Your task to perform on an android device: Search for "razer blade" on walmart.com, select the first entry, add it to the cart, then select checkout. Image 0: 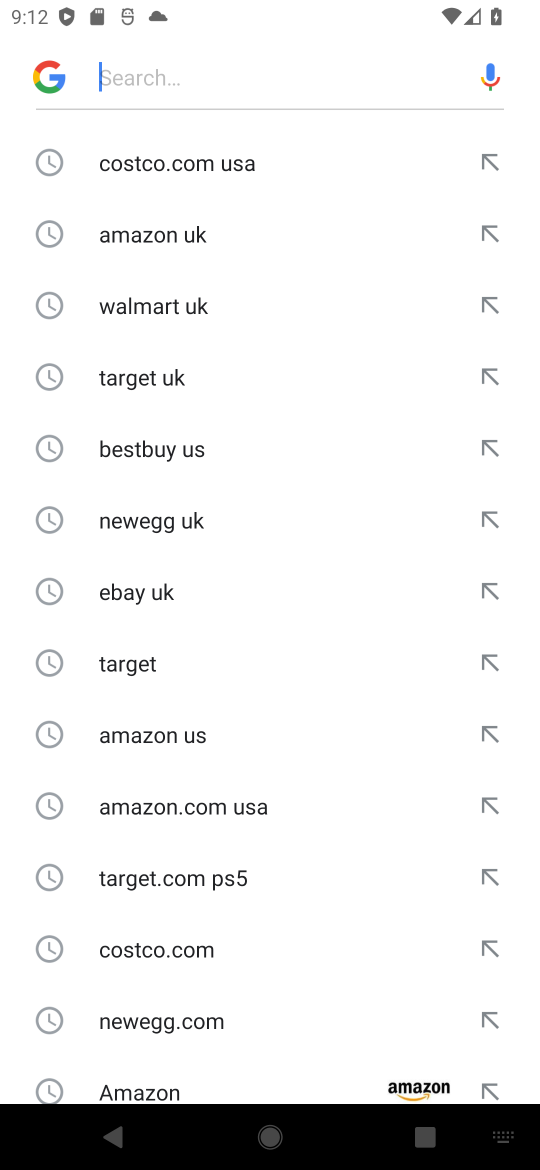
Step 0: click (171, 301)
Your task to perform on an android device: Search for "razer blade" on walmart.com, select the first entry, add it to the cart, then select checkout. Image 1: 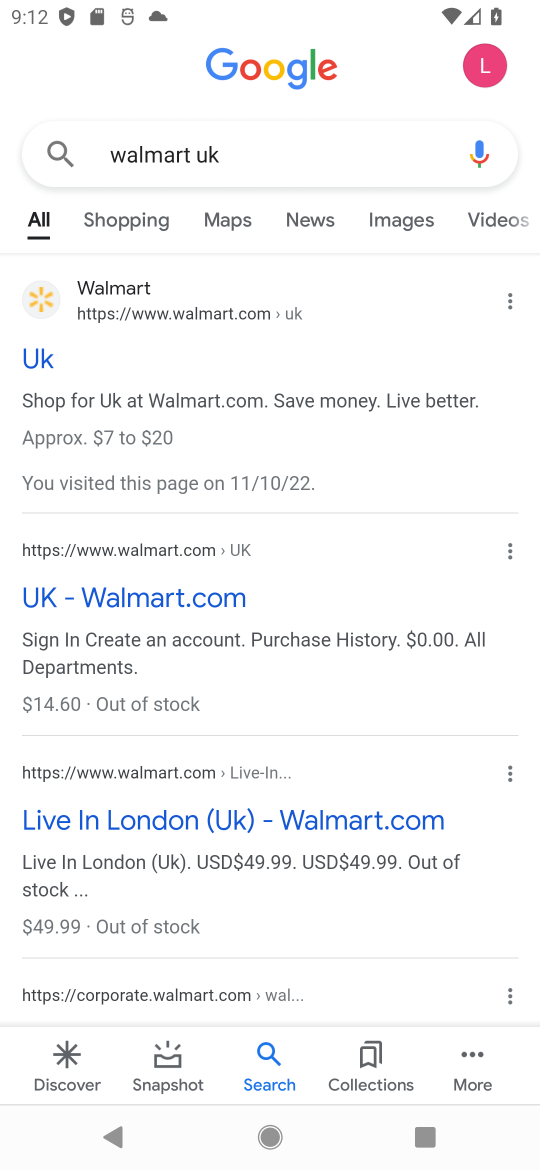
Step 1: click (42, 282)
Your task to perform on an android device: Search for "razer blade" on walmart.com, select the first entry, add it to the cart, then select checkout. Image 2: 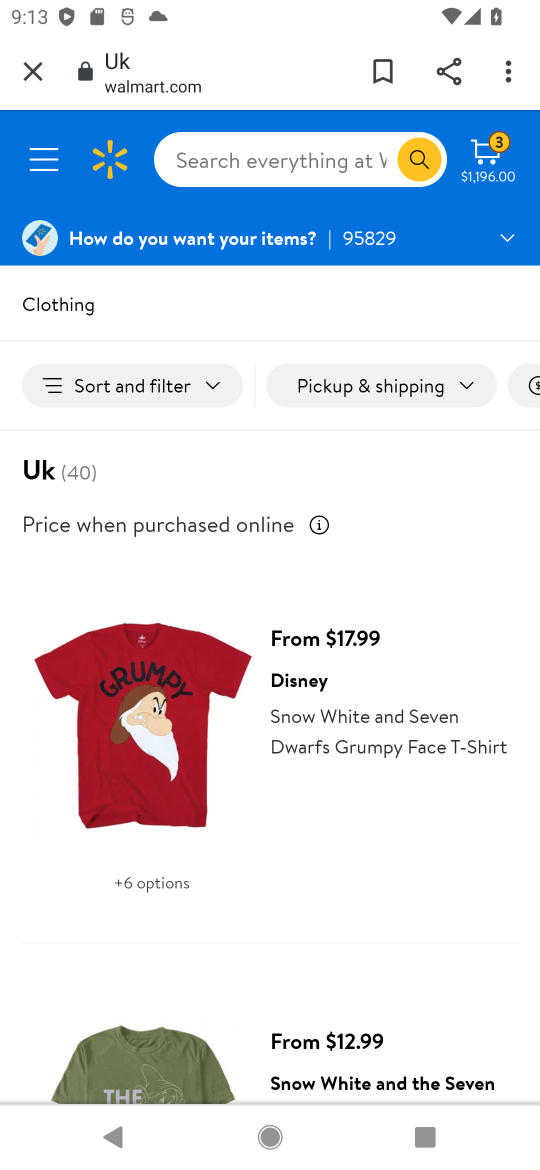
Step 2: click (250, 156)
Your task to perform on an android device: Search for "razer blade" on walmart.com, select the first entry, add it to the cart, then select checkout. Image 3: 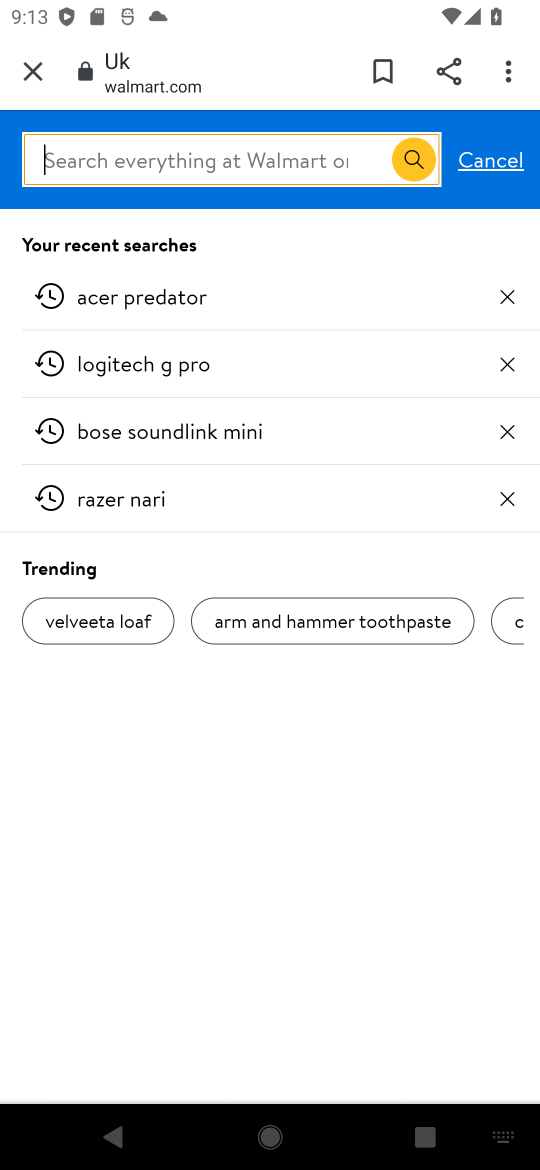
Step 3: type "razer blade "
Your task to perform on an android device: Search for "razer blade" on walmart.com, select the first entry, add it to the cart, then select checkout. Image 4: 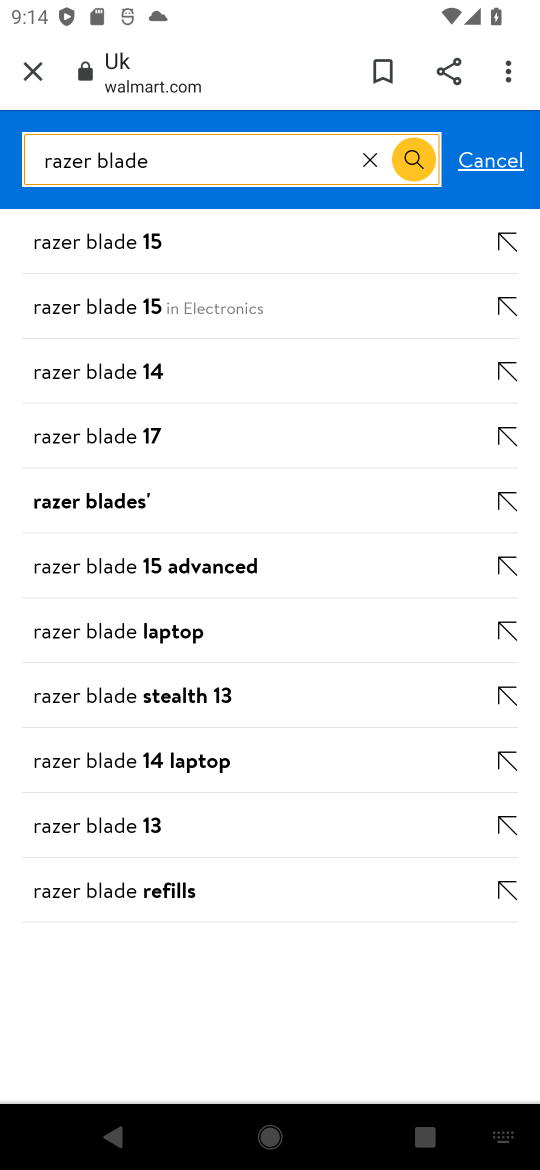
Step 4: click (160, 506)
Your task to perform on an android device: Search for "razer blade" on walmart.com, select the first entry, add it to the cart, then select checkout. Image 5: 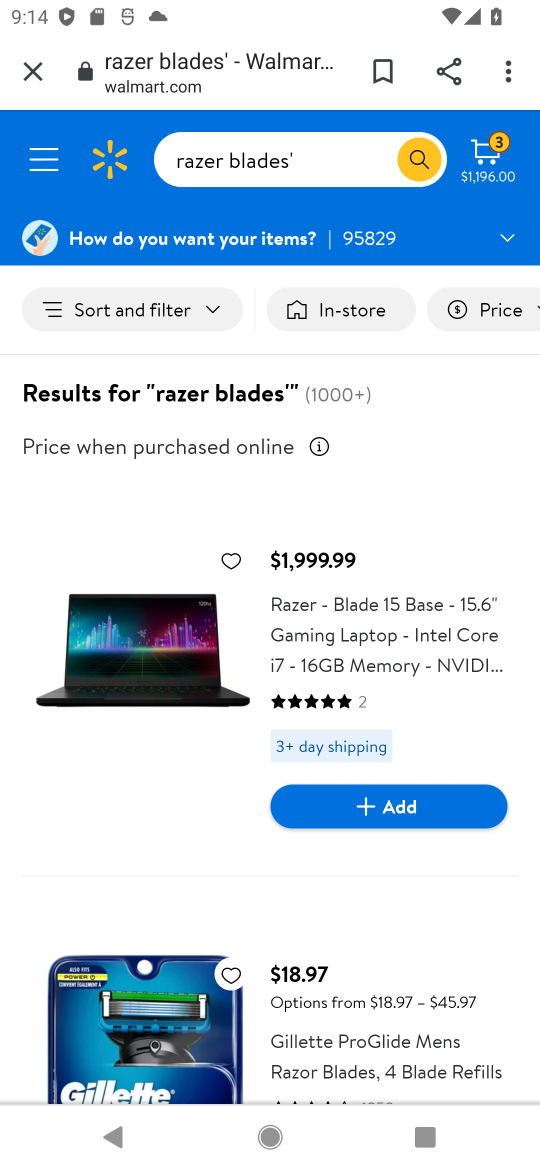
Step 5: click (387, 797)
Your task to perform on an android device: Search for "razer blade" on walmart.com, select the first entry, add it to the cart, then select checkout. Image 6: 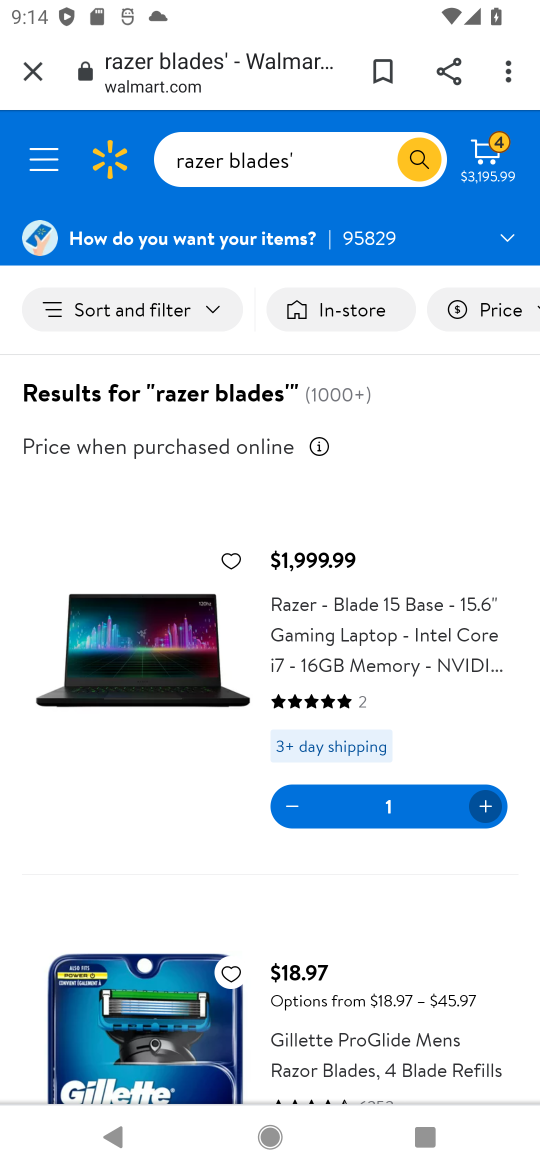
Step 6: task complete